Your task to perform on an android device: turn on data saver in the chrome app Image 0: 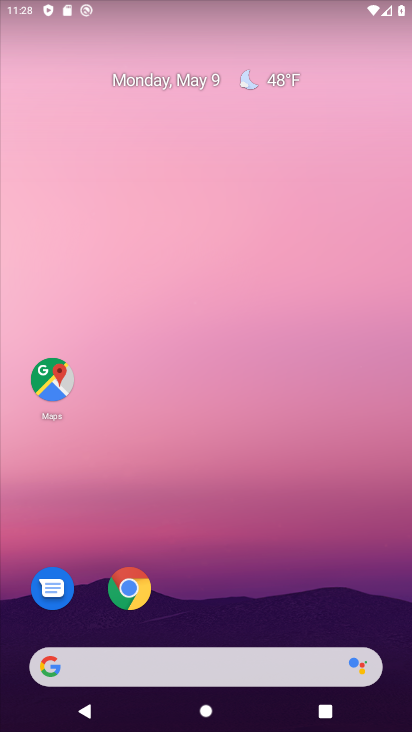
Step 0: drag from (349, 593) to (353, 283)
Your task to perform on an android device: turn on data saver in the chrome app Image 1: 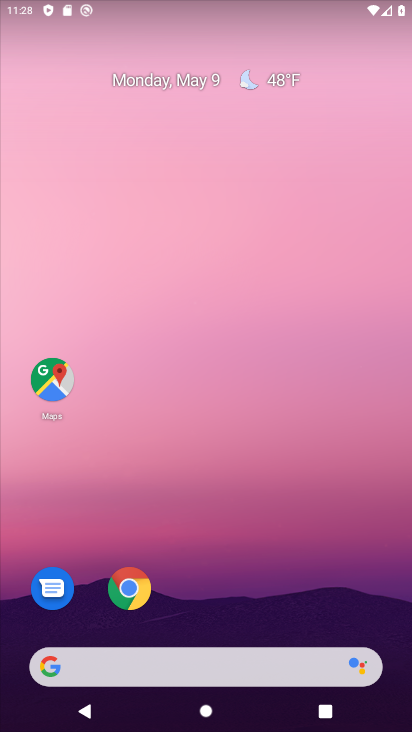
Step 1: drag from (271, 458) to (311, 226)
Your task to perform on an android device: turn on data saver in the chrome app Image 2: 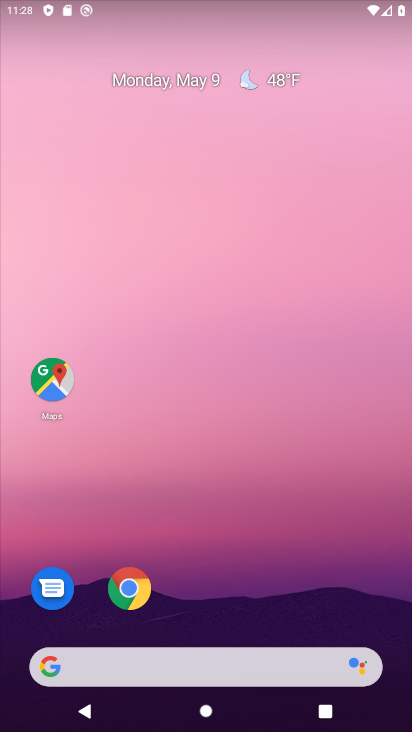
Step 2: drag from (261, 572) to (301, 186)
Your task to perform on an android device: turn on data saver in the chrome app Image 3: 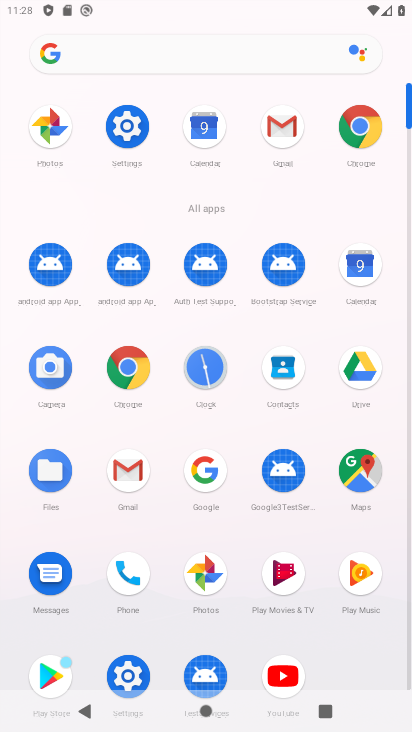
Step 3: click (371, 118)
Your task to perform on an android device: turn on data saver in the chrome app Image 4: 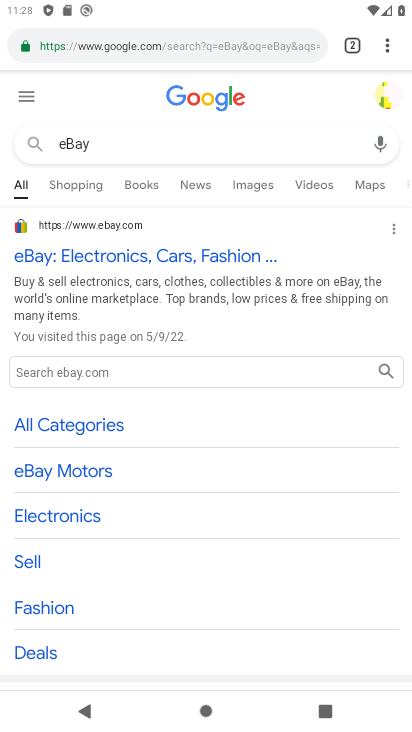
Step 4: click (375, 38)
Your task to perform on an android device: turn on data saver in the chrome app Image 5: 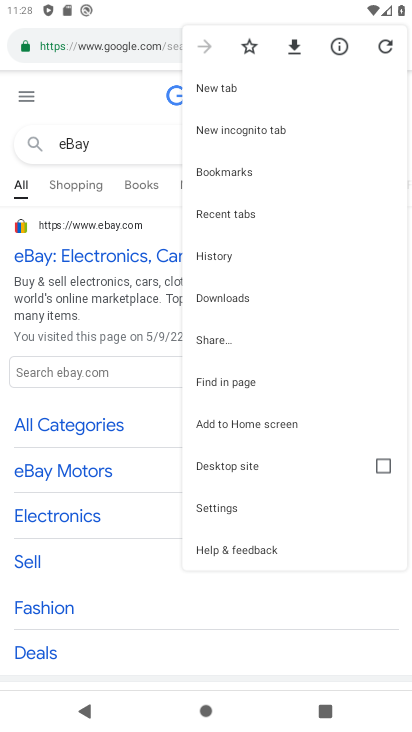
Step 5: click (215, 496)
Your task to perform on an android device: turn on data saver in the chrome app Image 6: 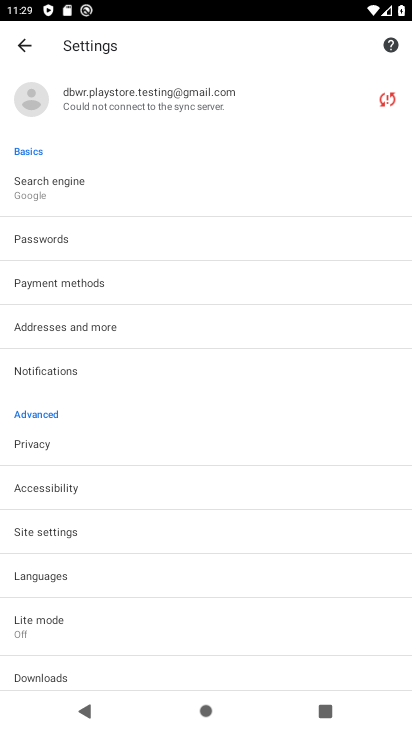
Step 6: click (84, 620)
Your task to perform on an android device: turn on data saver in the chrome app Image 7: 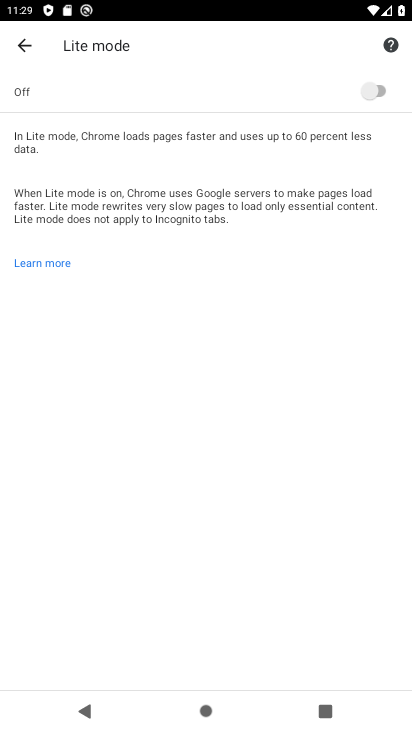
Step 7: click (381, 90)
Your task to perform on an android device: turn on data saver in the chrome app Image 8: 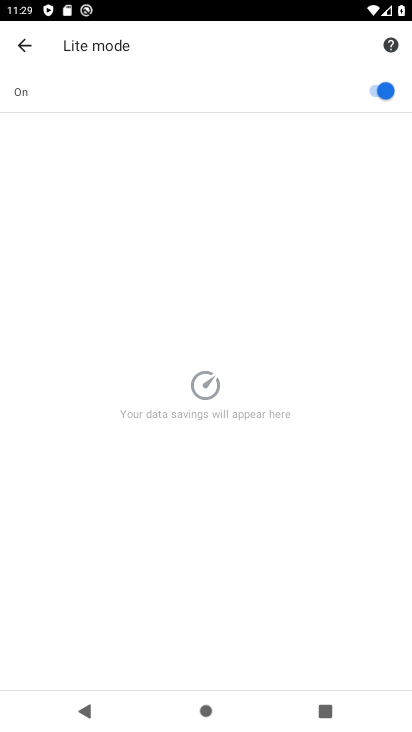
Step 8: task complete